Your task to perform on an android device: Go to Google maps Image 0: 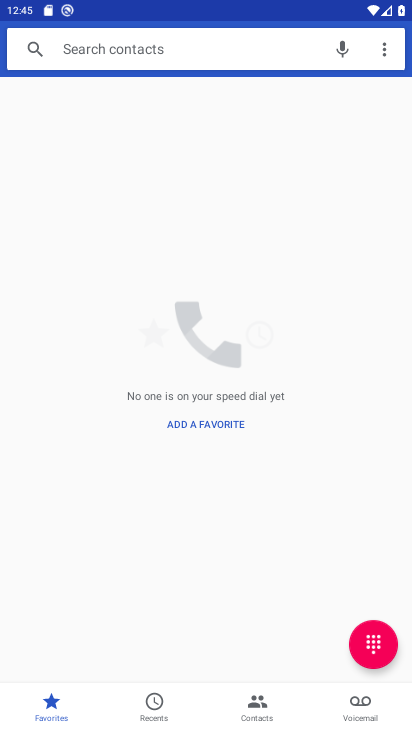
Step 0: press home button
Your task to perform on an android device: Go to Google maps Image 1: 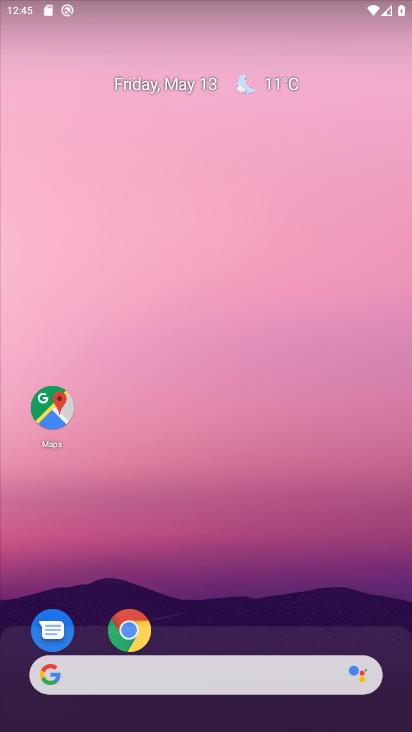
Step 1: click (54, 413)
Your task to perform on an android device: Go to Google maps Image 2: 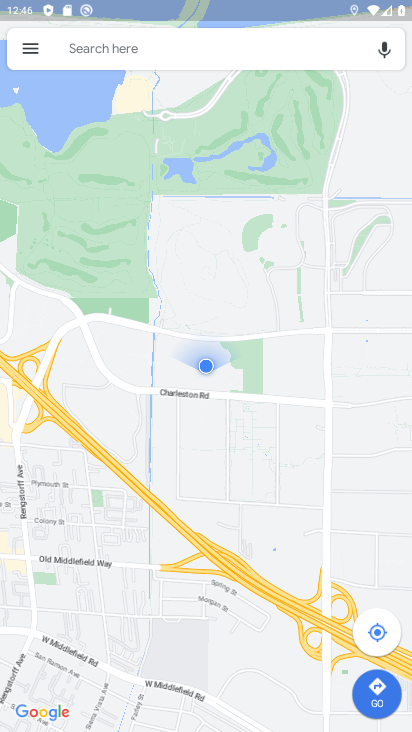
Step 2: task complete